Your task to perform on an android device: Go to Google maps Image 0: 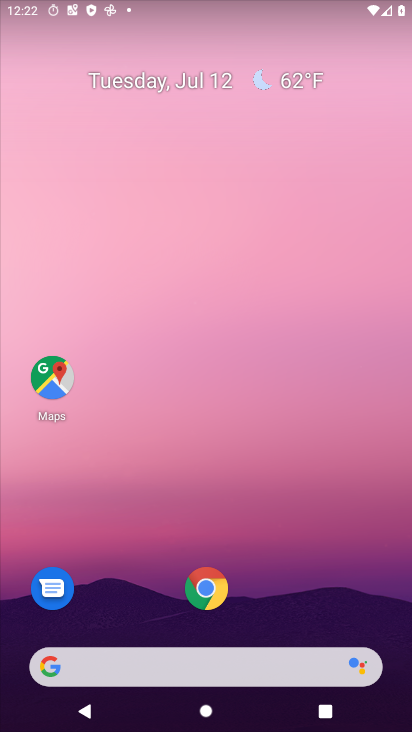
Step 0: click (57, 357)
Your task to perform on an android device: Go to Google maps Image 1: 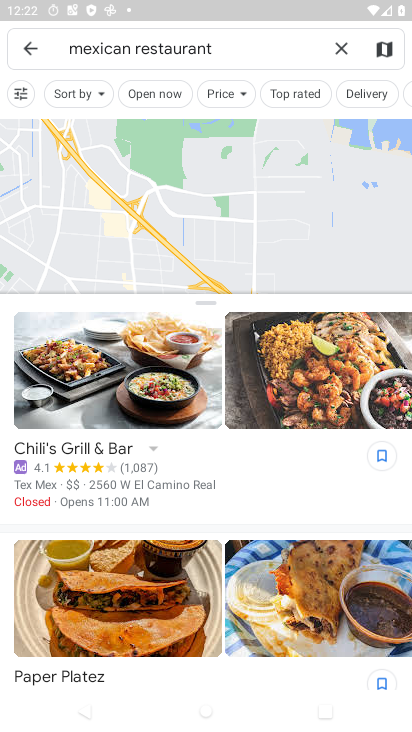
Step 1: task complete